Your task to perform on an android device: Open the calendar app, open the side menu, and click the "Day" option Image 0: 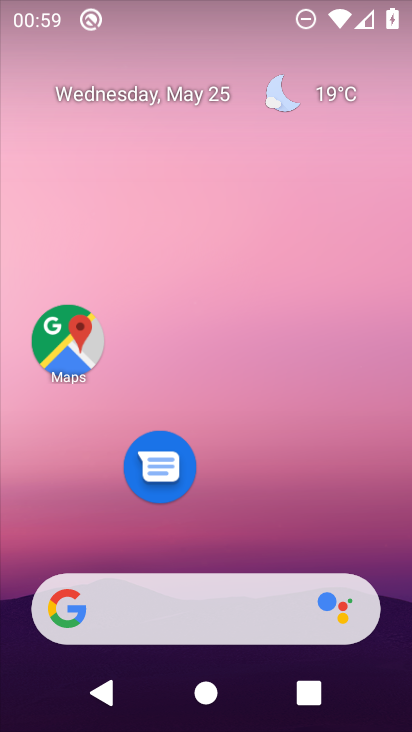
Step 0: drag from (230, 291) to (247, 151)
Your task to perform on an android device: Open the calendar app, open the side menu, and click the "Day" option Image 1: 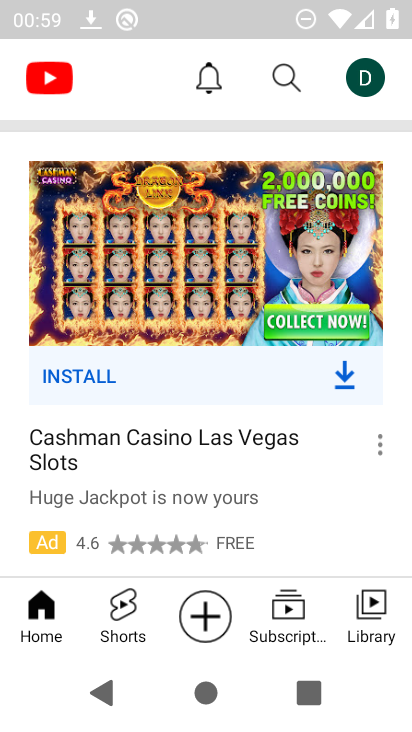
Step 1: press back button
Your task to perform on an android device: Open the calendar app, open the side menu, and click the "Day" option Image 2: 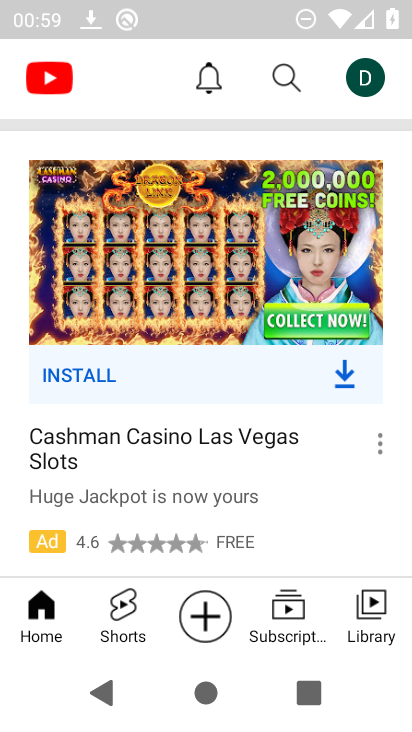
Step 2: press home button
Your task to perform on an android device: Open the calendar app, open the side menu, and click the "Day" option Image 3: 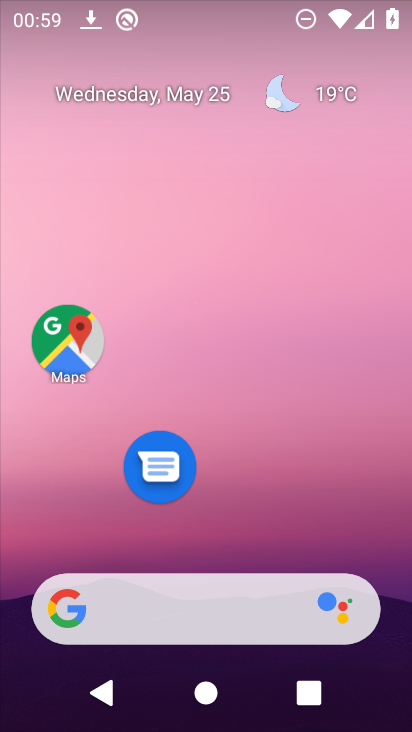
Step 3: drag from (265, 546) to (334, 186)
Your task to perform on an android device: Open the calendar app, open the side menu, and click the "Day" option Image 4: 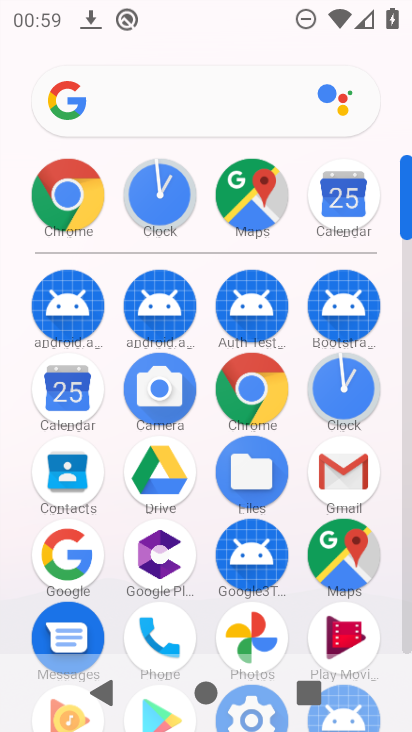
Step 4: click (358, 483)
Your task to perform on an android device: Open the calendar app, open the side menu, and click the "Day" option Image 5: 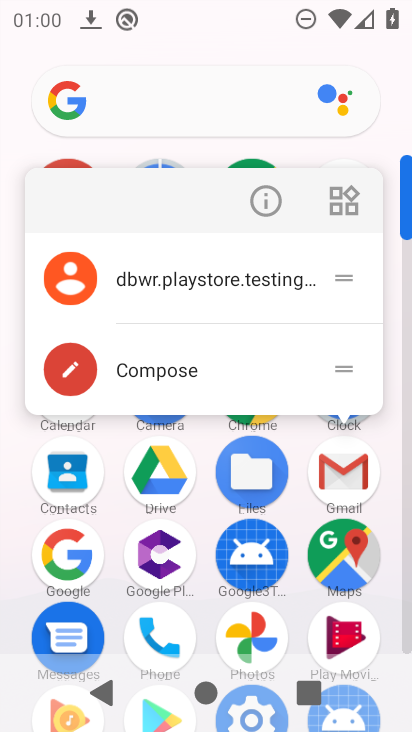
Step 5: click (275, 193)
Your task to perform on an android device: Open the calendar app, open the side menu, and click the "Day" option Image 6: 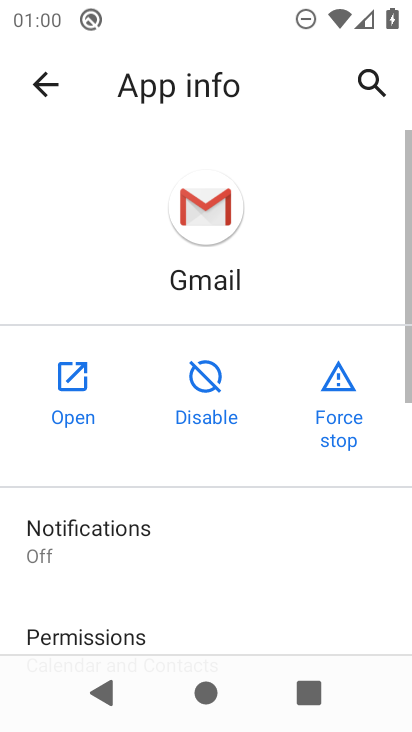
Step 6: click (76, 378)
Your task to perform on an android device: Open the calendar app, open the side menu, and click the "Day" option Image 7: 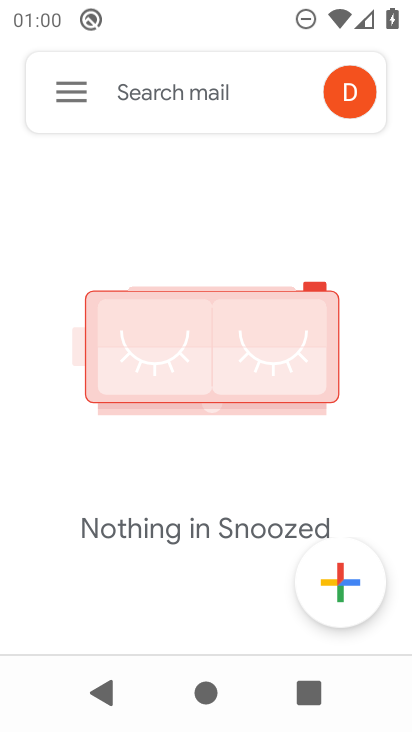
Step 7: click (78, 114)
Your task to perform on an android device: Open the calendar app, open the side menu, and click the "Day" option Image 8: 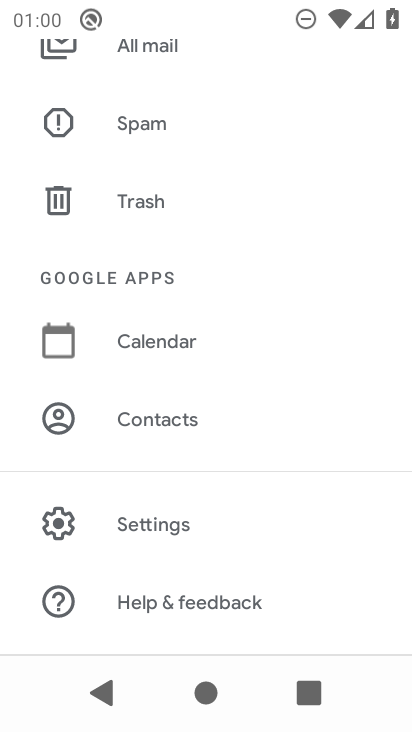
Step 8: drag from (138, 133) to (245, 449)
Your task to perform on an android device: Open the calendar app, open the side menu, and click the "Day" option Image 9: 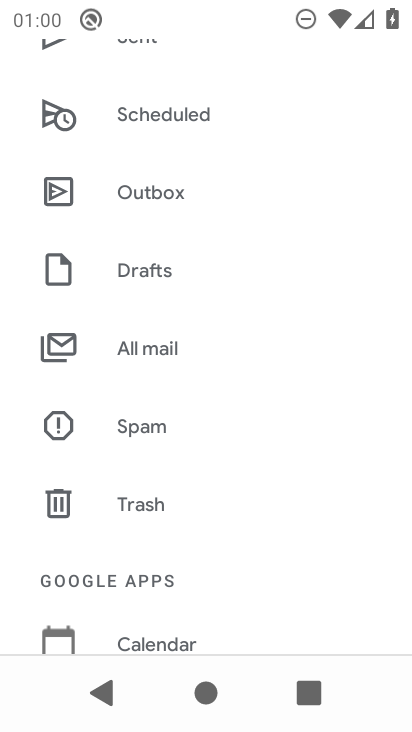
Step 9: press home button
Your task to perform on an android device: Open the calendar app, open the side menu, and click the "Day" option Image 10: 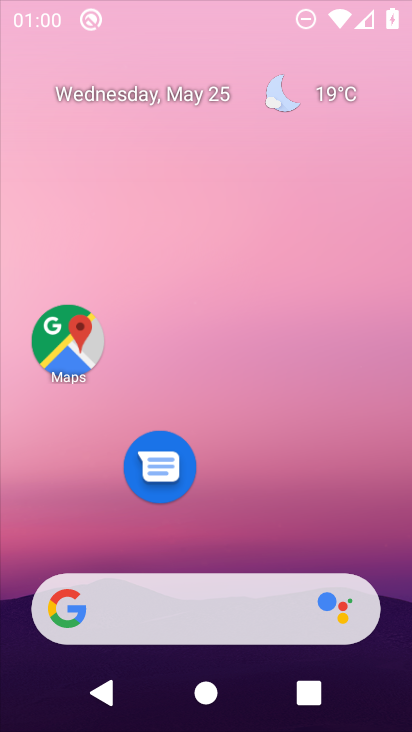
Step 10: drag from (217, 517) to (281, 122)
Your task to perform on an android device: Open the calendar app, open the side menu, and click the "Day" option Image 11: 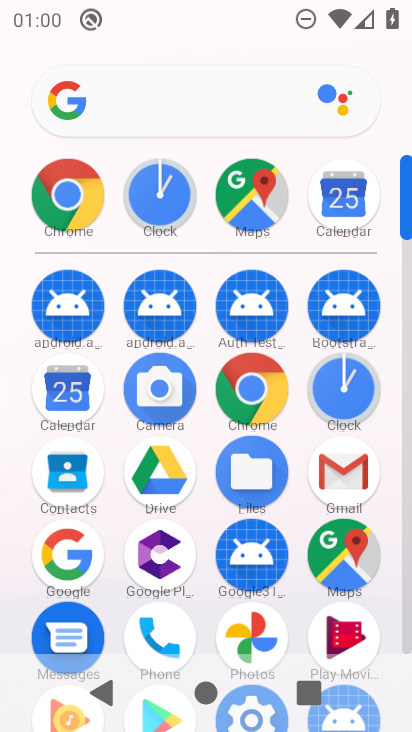
Step 11: click (80, 404)
Your task to perform on an android device: Open the calendar app, open the side menu, and click the "Day" option Image 12: 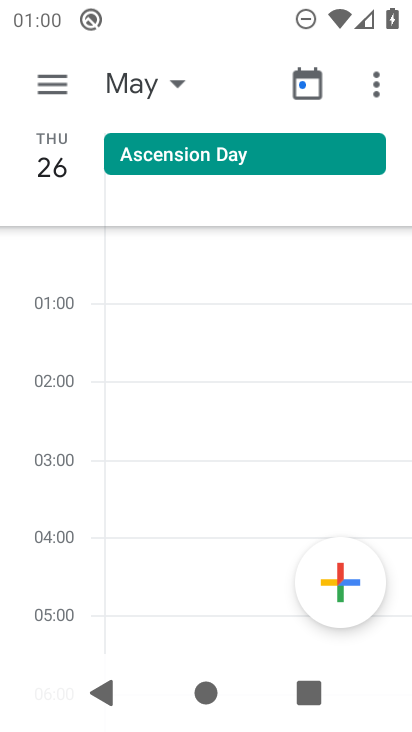
Step 12: click (183, 67)
Your task to perform on an android device: Open the calendar app, open the side menu, and click the "Day" option Image 13: 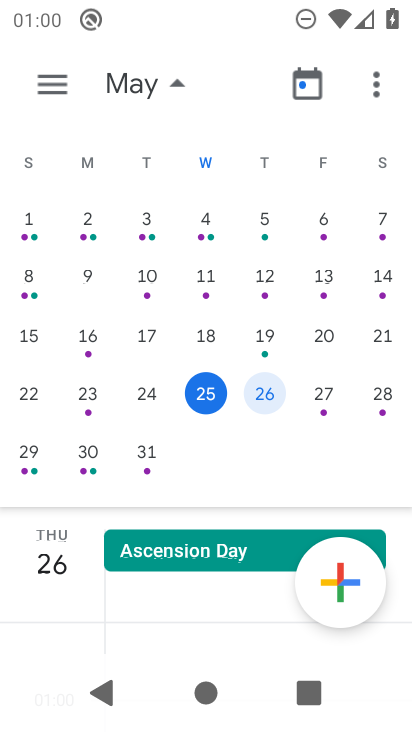
Step 13: click (66, 81)
Your task to perform on an android device: Open the calendar app, open the side menu, and click the "Day" option Image 14: 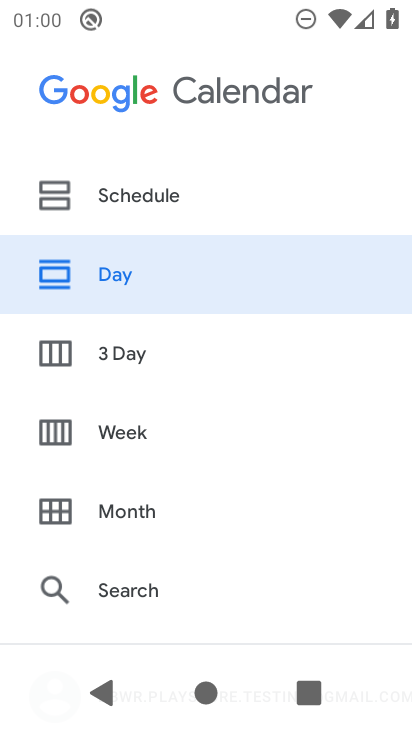
Step 14: click (87, 280)
Your task to perform on an android device: Open the calendar app, open the side menu, and click the "Day" option Image 15: 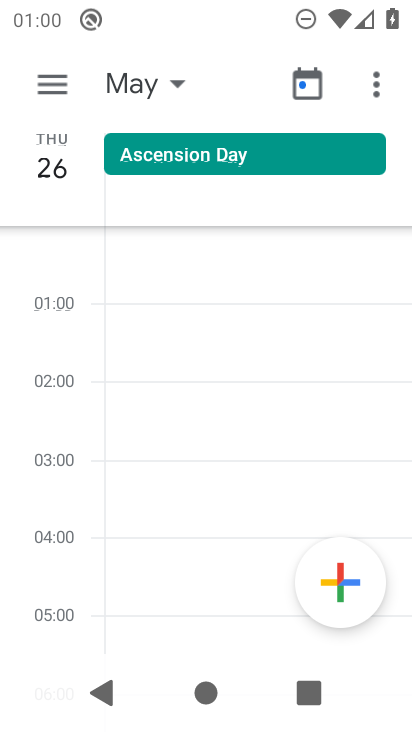
Step 15: task complete